Your task to perform on an android device: Open maps Image 0: 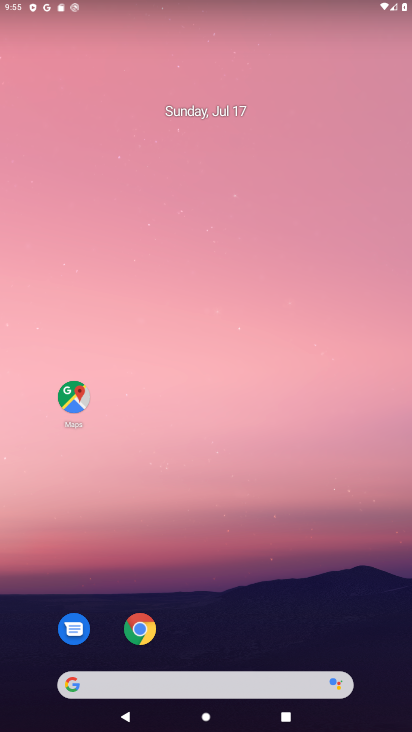
Step 0: click (71, 400)
Your task to perform on an android device: Open maps Image 1: 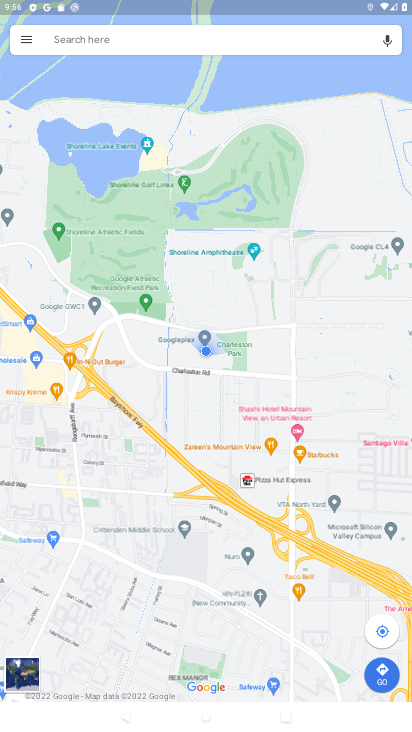
Step 1: task complete